Your task to perform on an android device: Open settings Image 0: 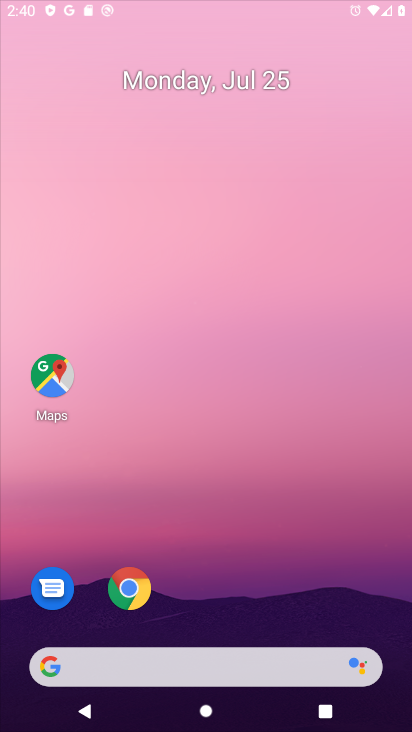
Step 0: press home button
Your task to perform on an android device: Open settings Image 1: 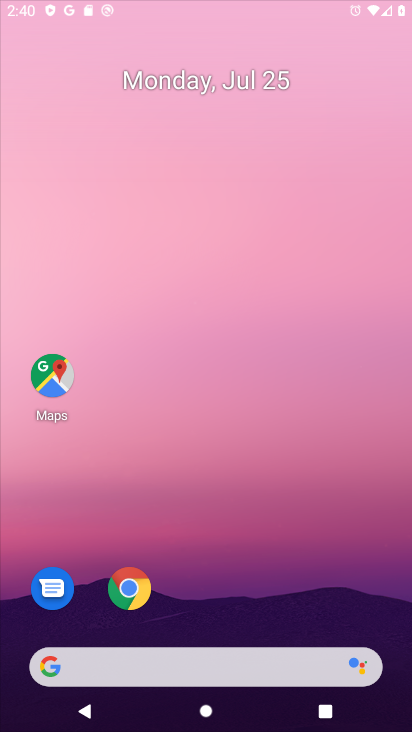
Step 1: click (250, 6)
Your task to perform on an android device: Open settings Image 2: 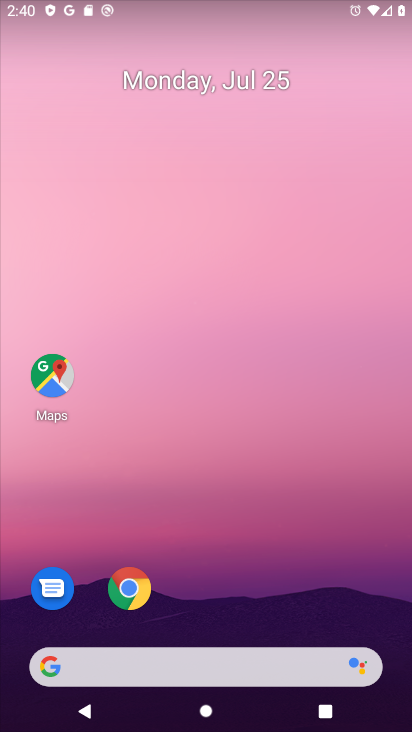
Step 2: press home button
Your task to perform on an android device: Open settings Image 3: 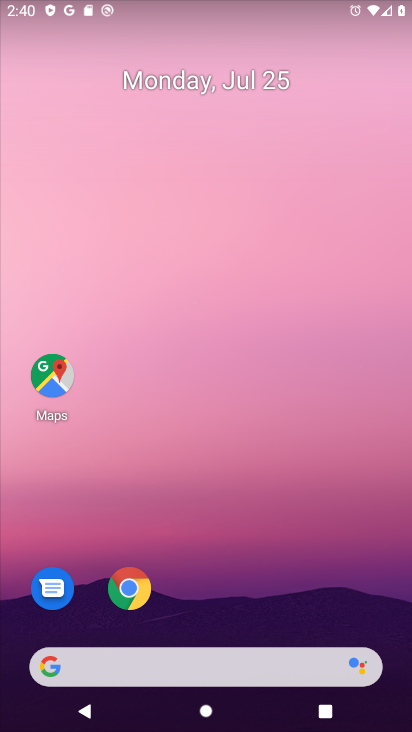
Step 3: drag from (219, 636) to (195, 5)
Your task to perform on an android device: Open settings Image 4: 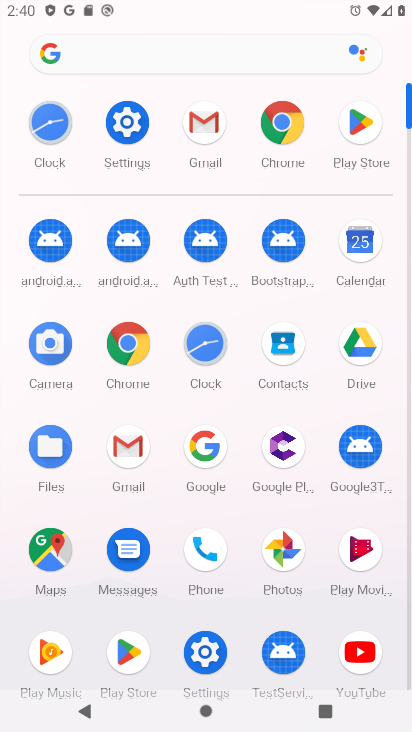
Step 4: click (126, 115)
Your task to perform on an android device: Open settings Image 5: 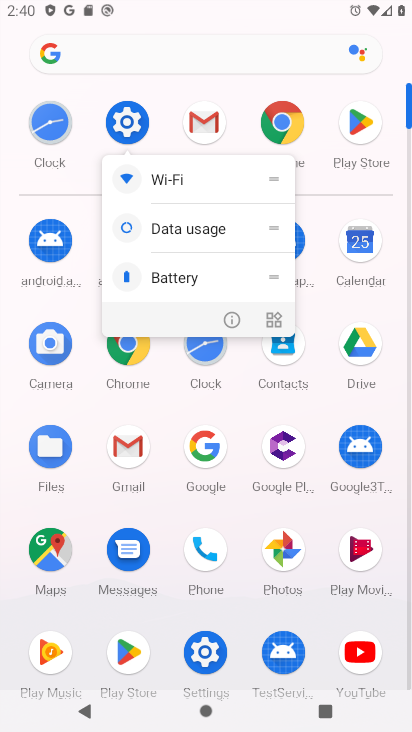
Step 5: click (126, 115)
Your task to perform on an android device: Open settings Image 6: 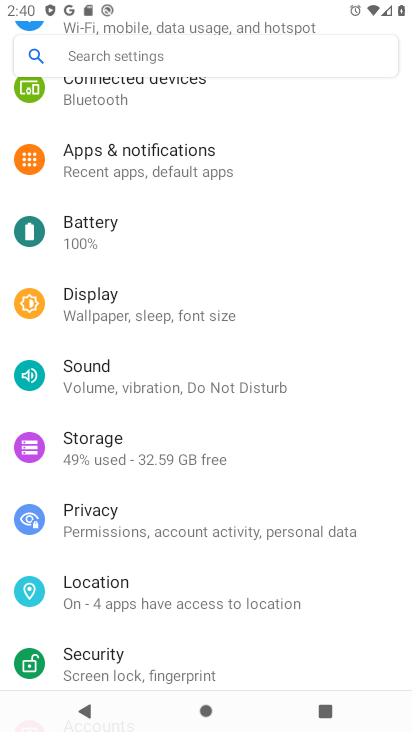
Step 6: task complete